Your task to perform on an android device: Open settings on Google Maps Image 0: 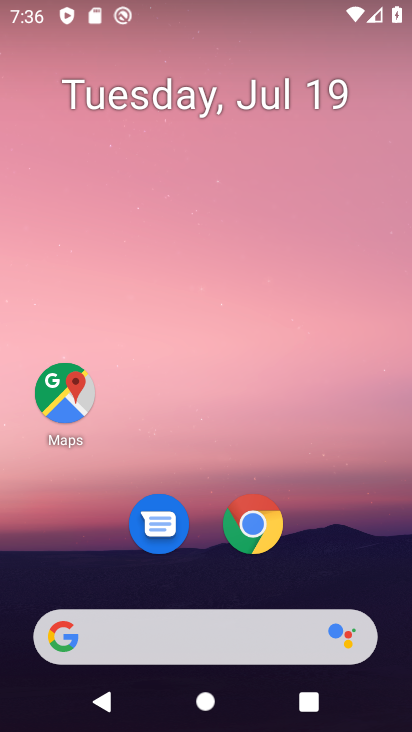
Step 0: click (64, 399)
Your task to perform on an android device: Open settings on Google Maps Image 1: 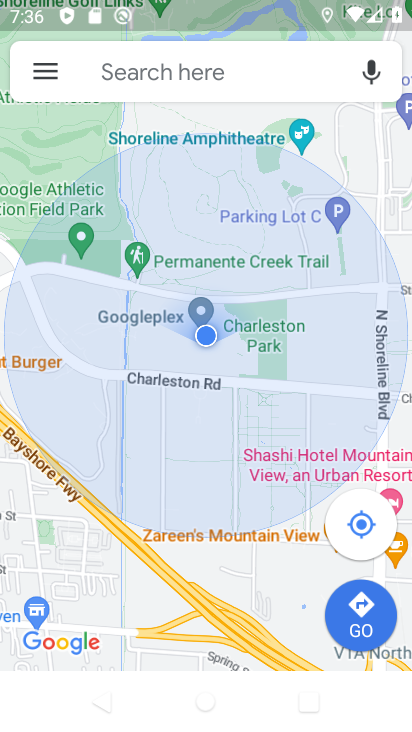
Step 1: click (49, 76)
Your task to perform on an android device: Open settings on Google Maps Image 2: 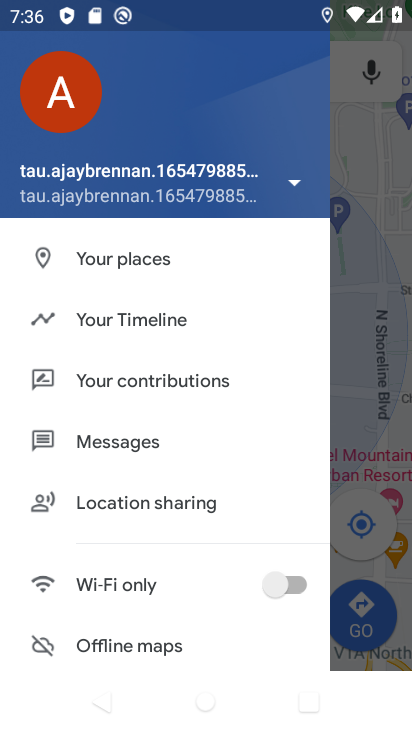
Step 2: drag from (146, 612) to (177, 82)
Your task to perform on an android device: Open settings on Google Maps Image 3: 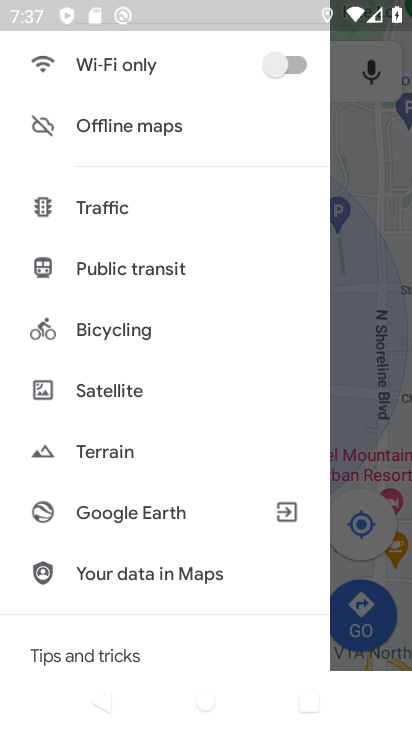
Step 3: drag from (156, 382) to (200, 61)
Your task to perform on an android device: Open settings on Google Maps Image 4: 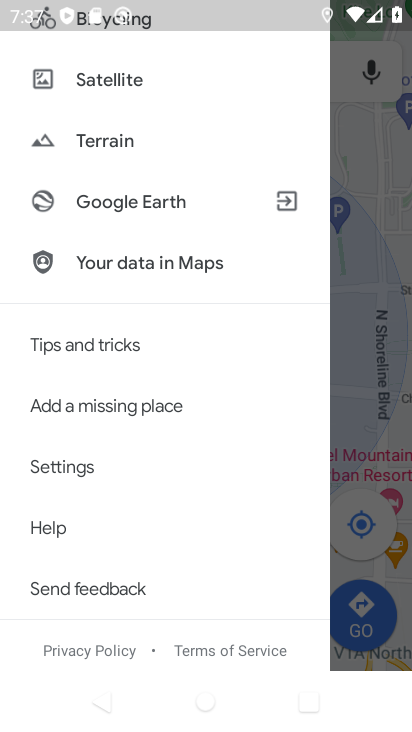
Step 4: click (69, 466)
Your task to perform on an android device: Open settings on Google Maps Image 5: 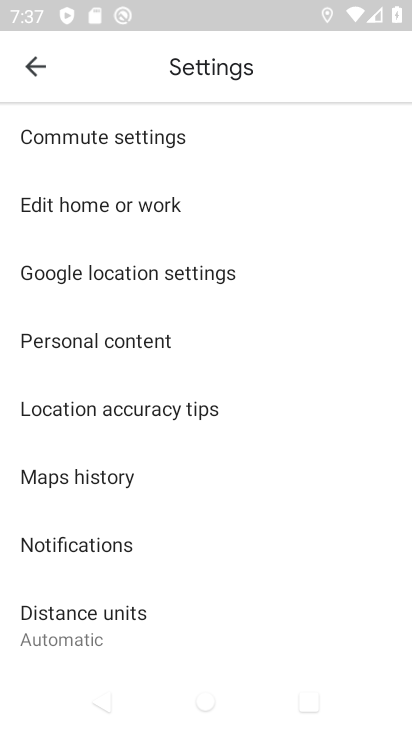
Step 5: task complete